Your task to perform on an android device: turn on translation in the chrome app Image 0: 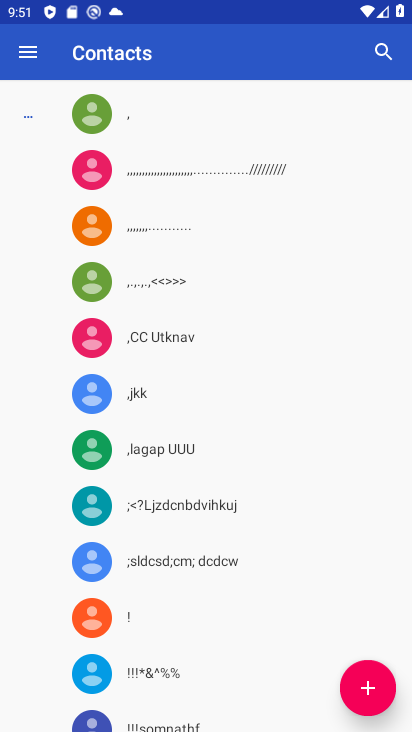
Step 0: press home button
Your task to perform on an android device: turn on translation in the chrome app Image 1: 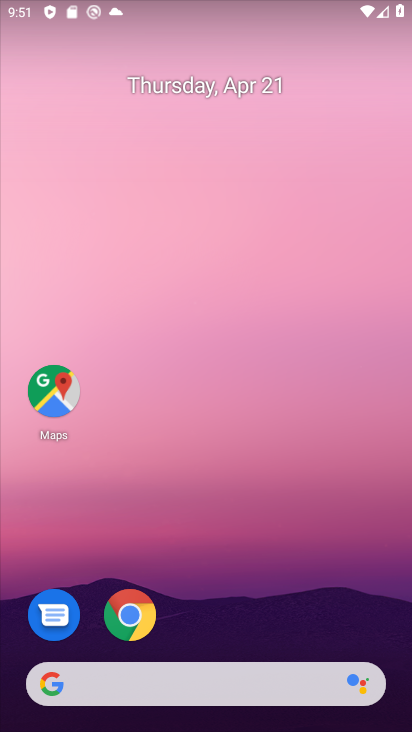
Step 1: drag from (227, 527) to (279, 19)
Your task to perform on an android device: turn on translation in the chrome app Image 2: 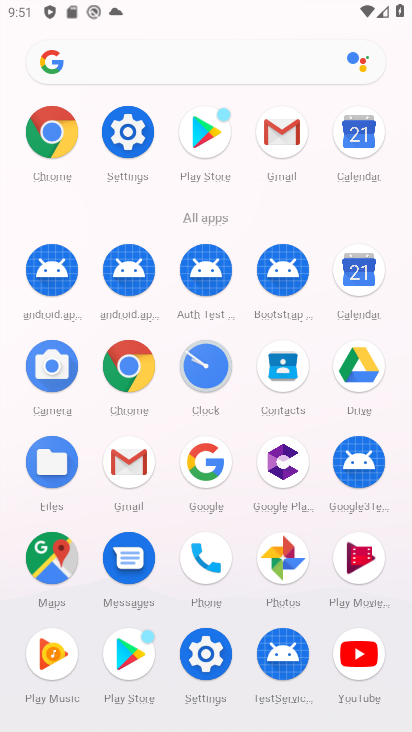
Step 2: click (125, 357)
Your task to perform on an android device: turn on translation in the chrome app Image 3: 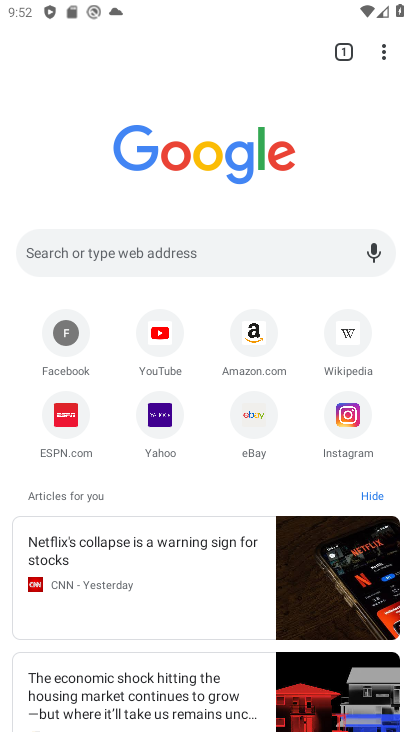
Step 3: click (382, 52)
Your task to perform on an android device: turn on translation in the chrome app Image 4: 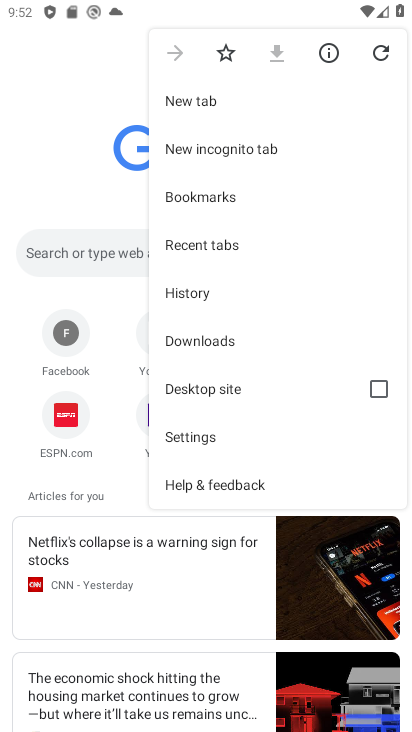
Step 4: click (224, 434)
Your task to perform on an android device: turn on translation in the chrome app Image 5: 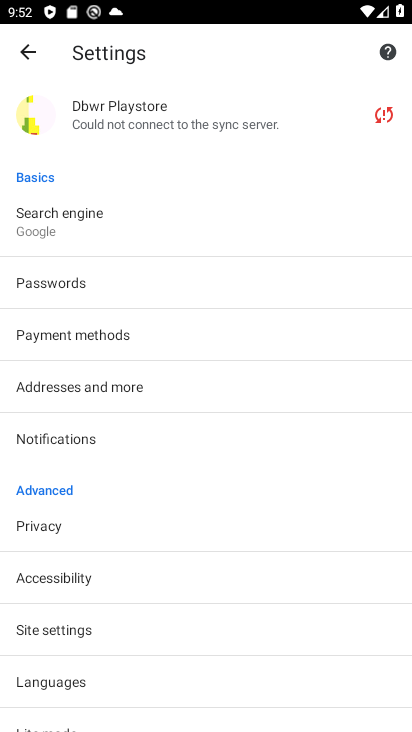
Step 5: click (106, 677)
Your task to perform on an android device: turn on translation in the chrome app Image 6: 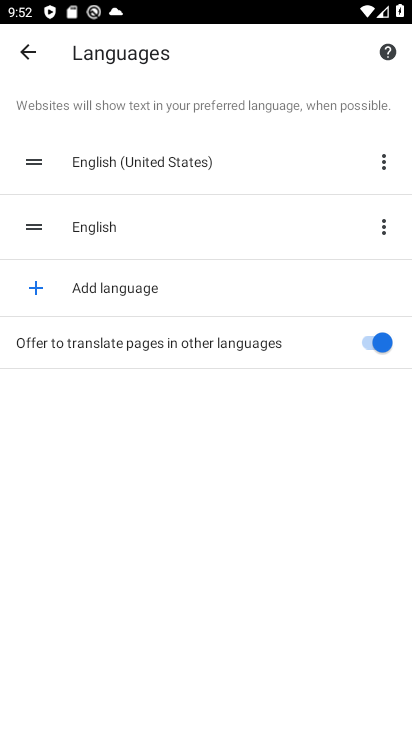
Step 6: task complete